Your task to perform on an android device: Search for the best rated coffee table on Target. Image 0: 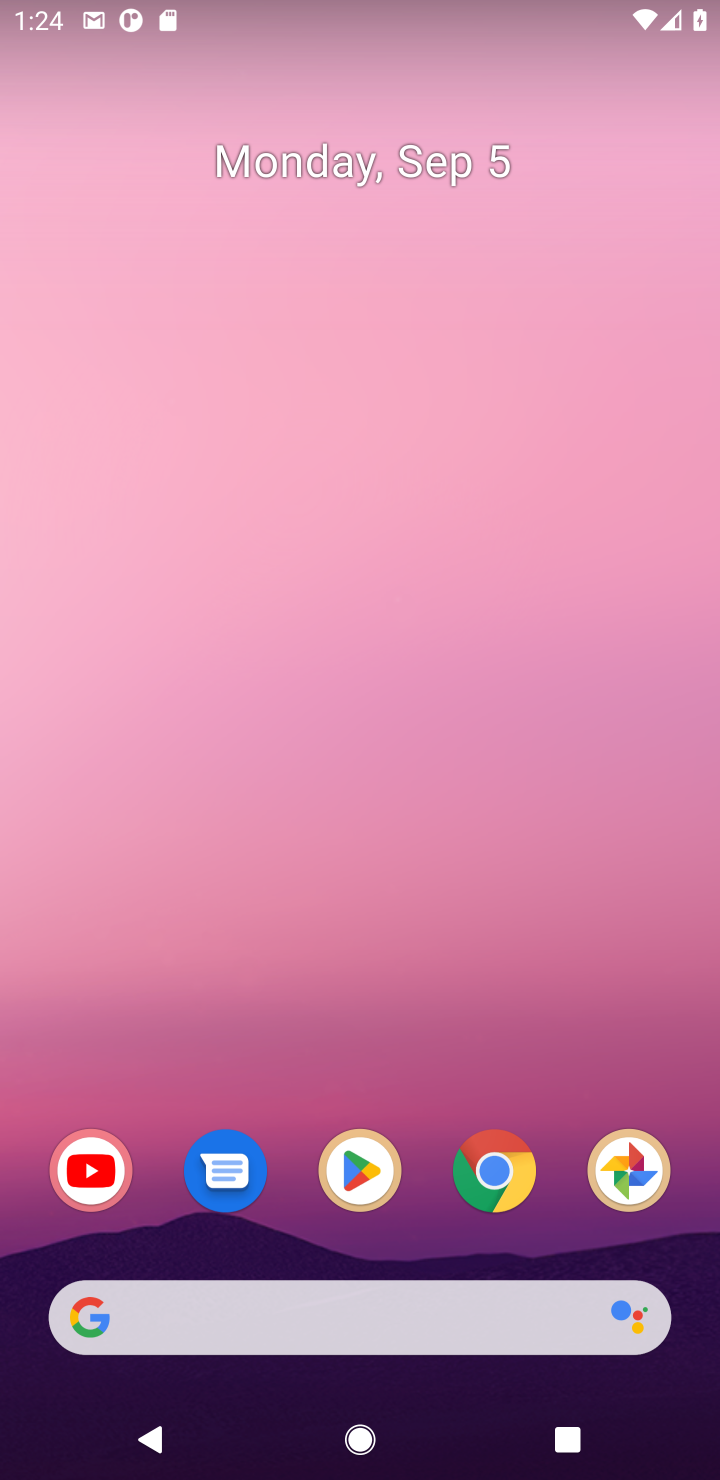
Step 0: click (373, 626)
Your task to perform on an android device: Search for the best rated coffee table on Target. Image 1: 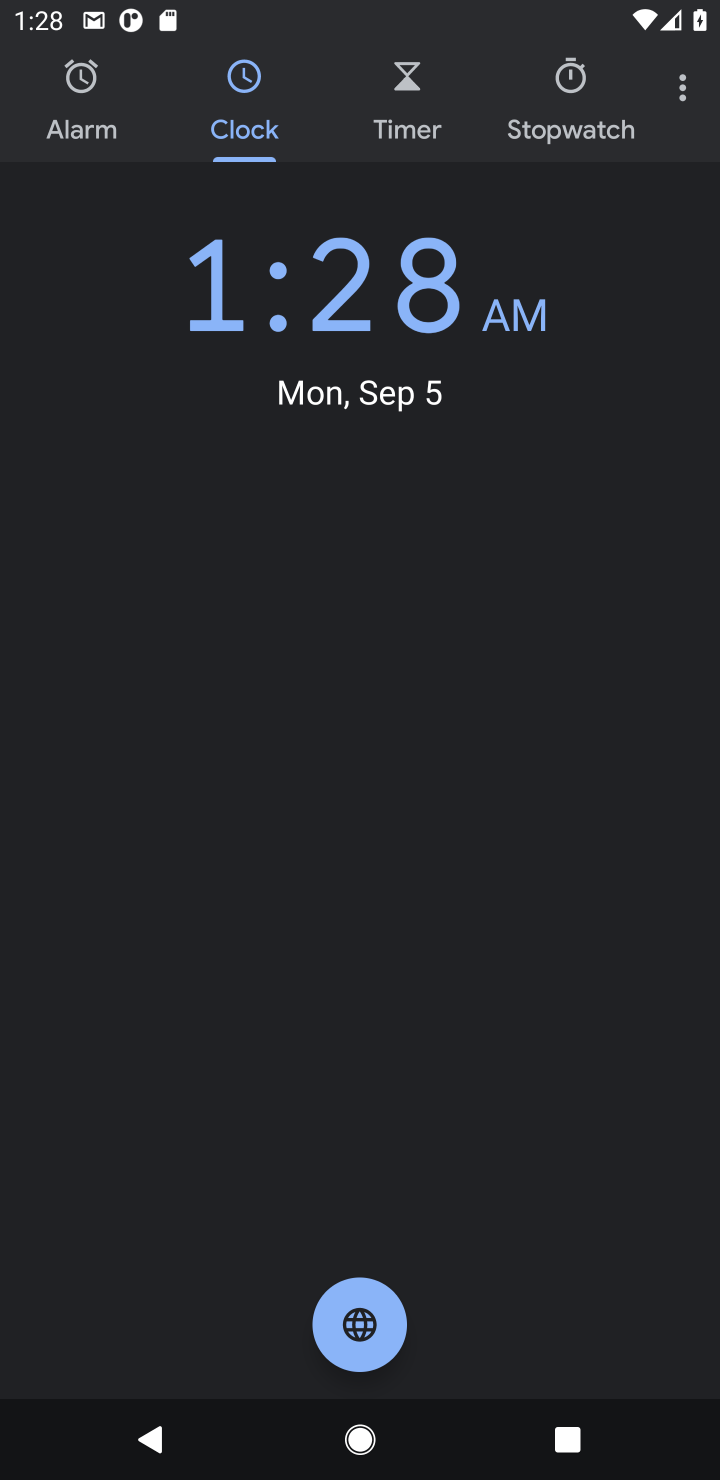
Step 1: task complete